Your task to perform on an android device: Do I have any events today? Image 0: 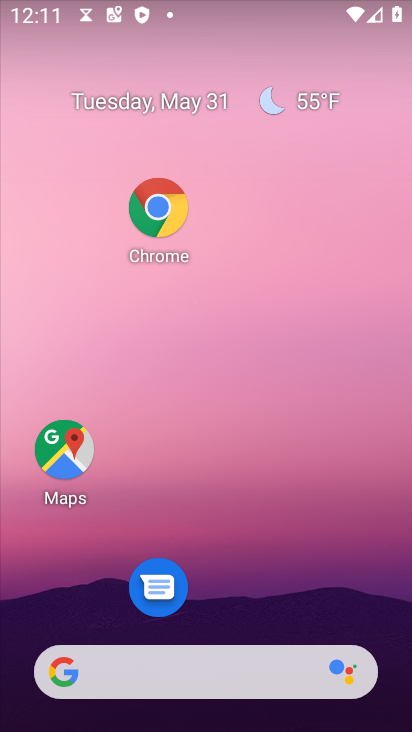
Step 0: drag from (287, 564) to (233, 99)
Your task to perform on an android device: Do I have any events today? Image 1: 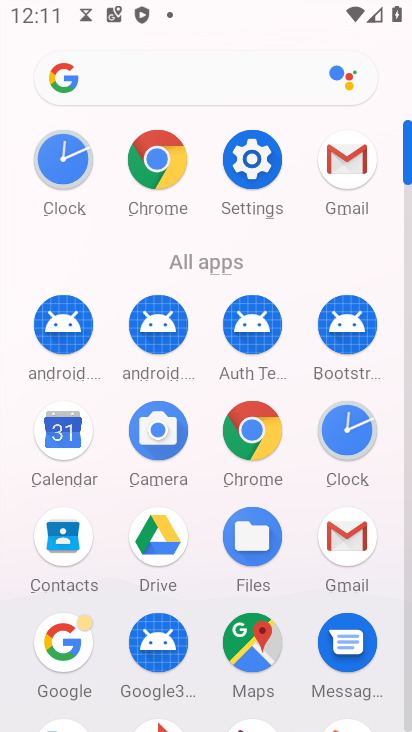
Step 1: click (71, 425)
Your task to perform on an android device: Do I have any events today? Image 2: 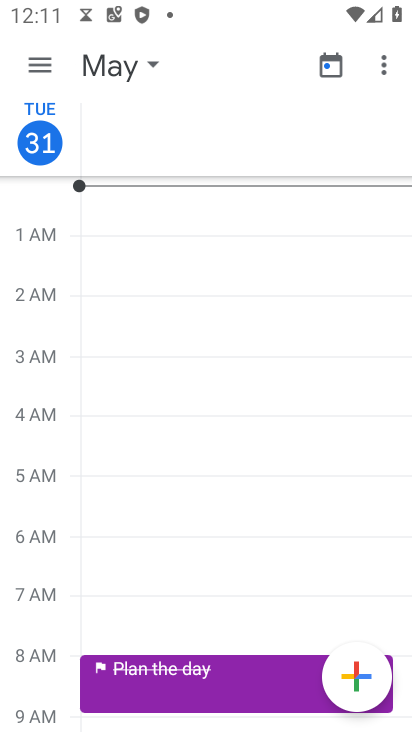
Step 2: click (52, 61)
Your task to perform on an android device: Do I have any events today? Image 3: 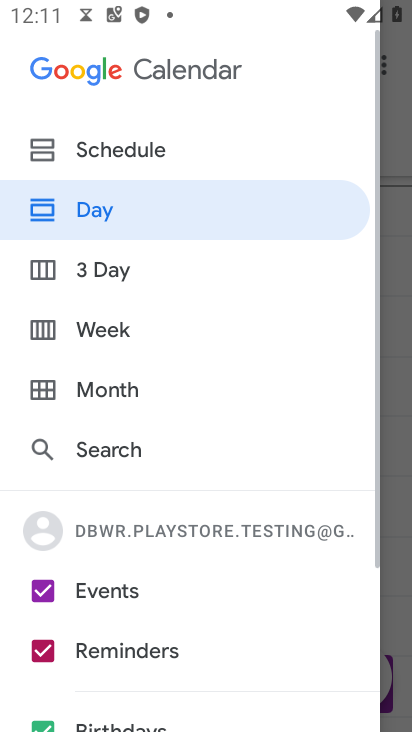
Step 3: click (70, 144)
Your task to perform on an android device: Do I have any events today? Image 4: 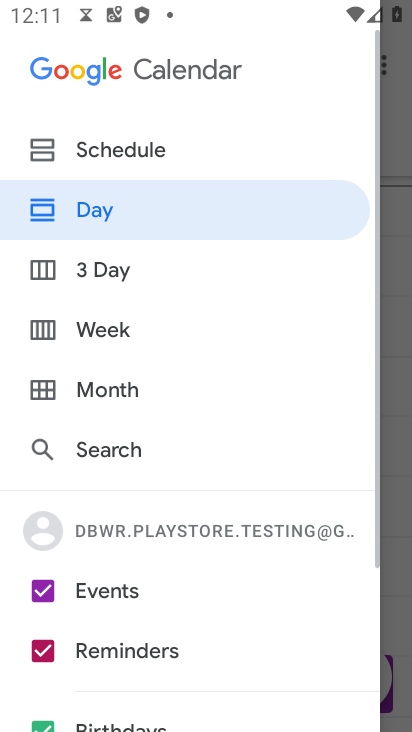
Step 4: click (102, 145)
Your task to perform on an android device: Do I have any events today? Image 5: 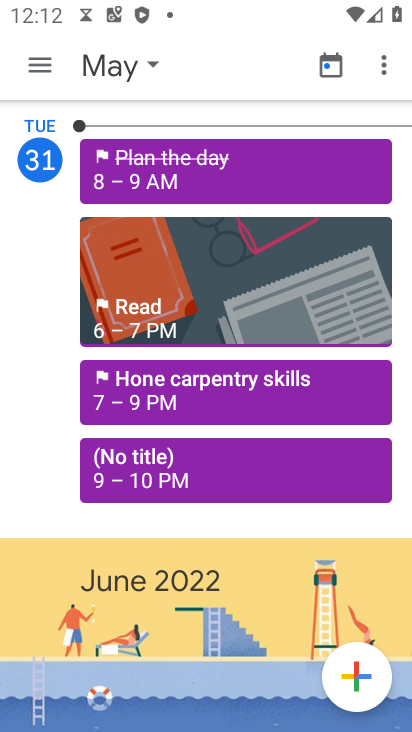
Step 5: task complete